Your task to perform on an android device: open chrome privacy settings Image 0: 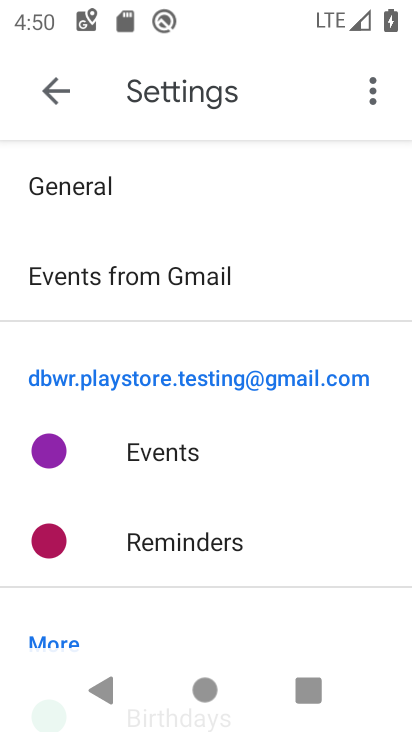
Step 0: press home button
Your task to perform on an android device: open chrome privacy settings Image 1: 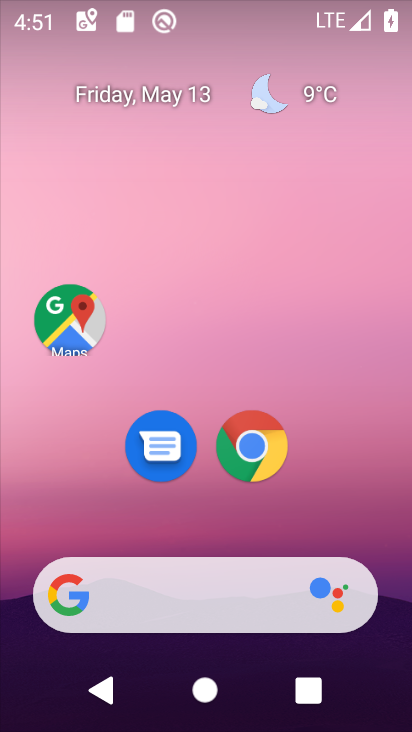
Step 1: click (267, 456)
Your task to perform on an android device: open chrome privacy settings Image 2: 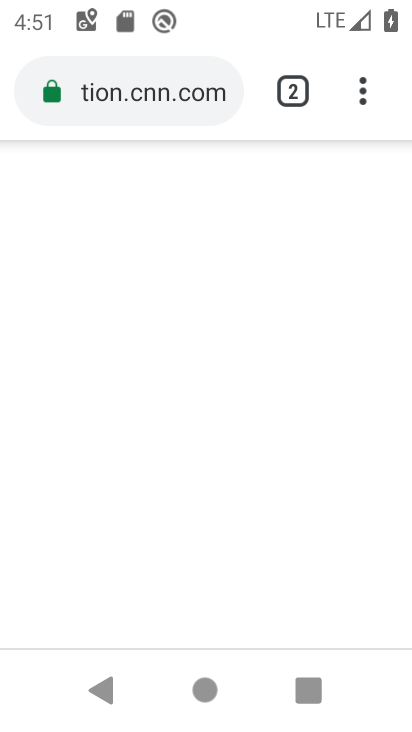
Step 2: click (364, 66)
Your task to perform on an android device: open chrome privacy settings Image 3: 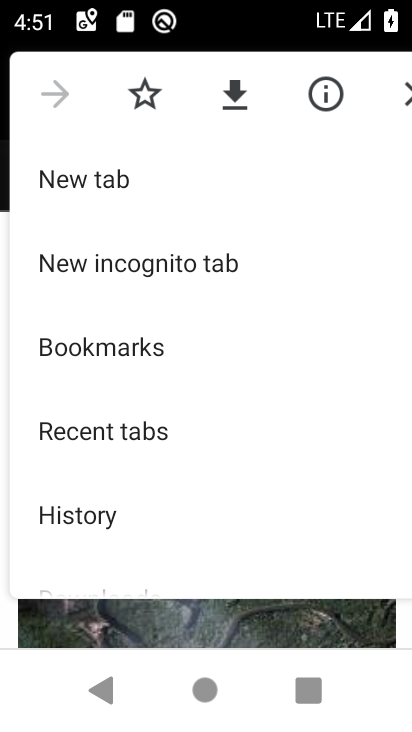
Step 3: drag from (212, 520) to (290, 202)
Your task to perform on an android device: open chrome privacy settings Image 4: 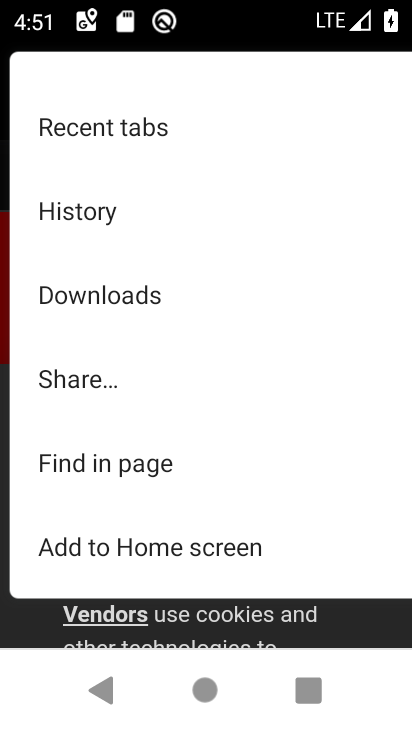
Step 4: drag from (93, 517) to (114, 182)
Your task to perform on an android device: open chrome privacy settings Image 5: 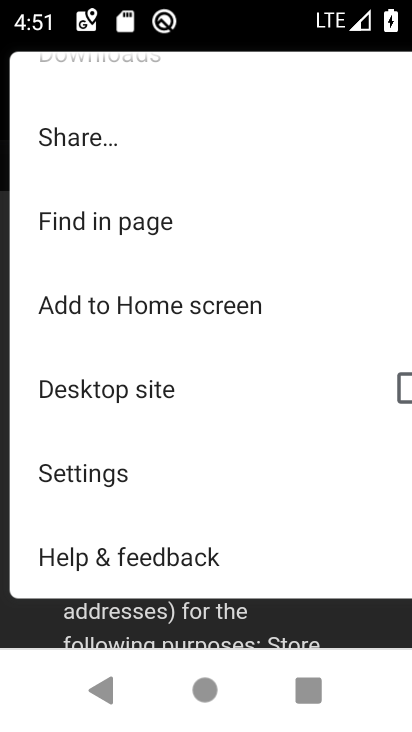
Step 5: click (83, 470)
Your task to perform on an android device: open chrome privacy settings Image 6: 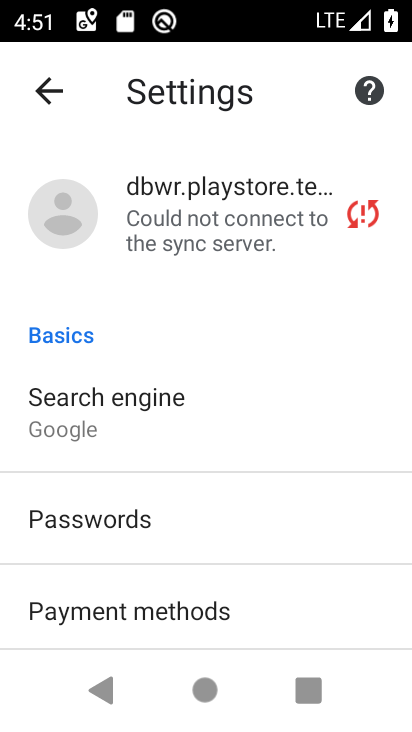
Step 6: drag from (305, 581) to (354, 202)
Your task to perform on an android device: open chrome privacy settings Image 7: 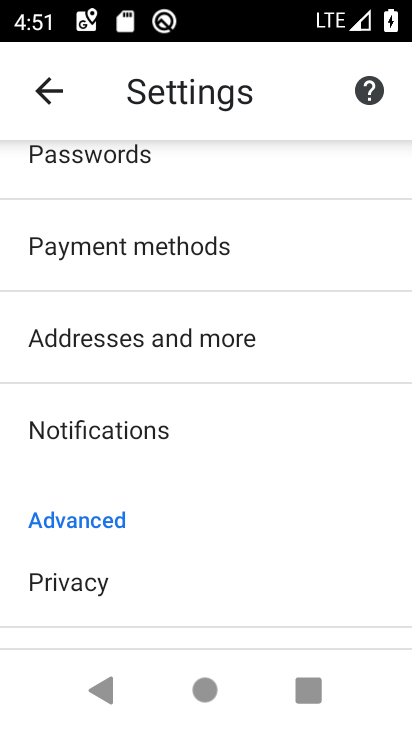
Step 7: drag from (242, 570) to (229, 236)
Your task to perform on an android device: open chrome privacy settings Image 8: 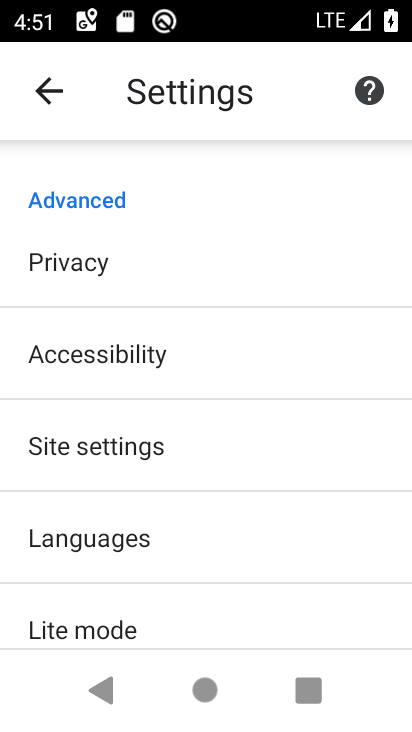
Step 8: click (153, 356)
Your task to perform on an android device: open chrome privacy settings Image 9: 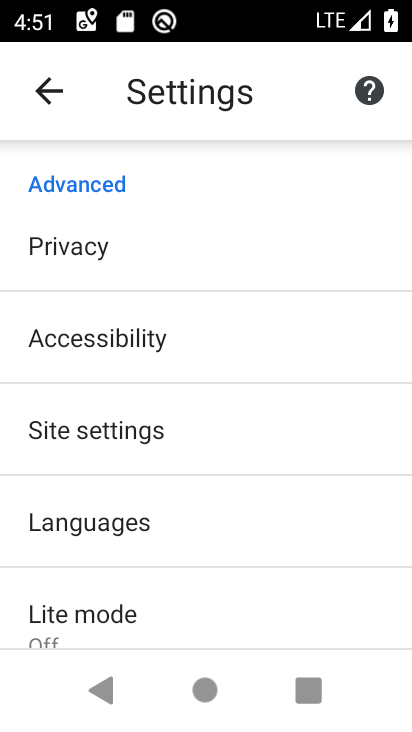
Step 9: click (132, 242)
Your task to perform on an android device: open chrome privacy settings Image 10: 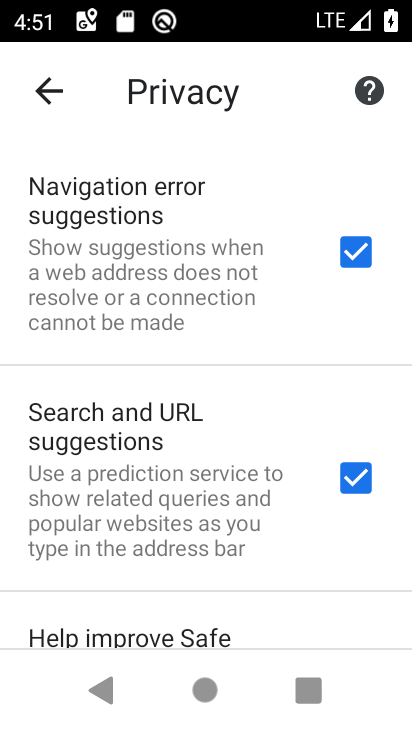
Step 10: task complete